Your task to perform on an android device: change notifications settings Image 0: 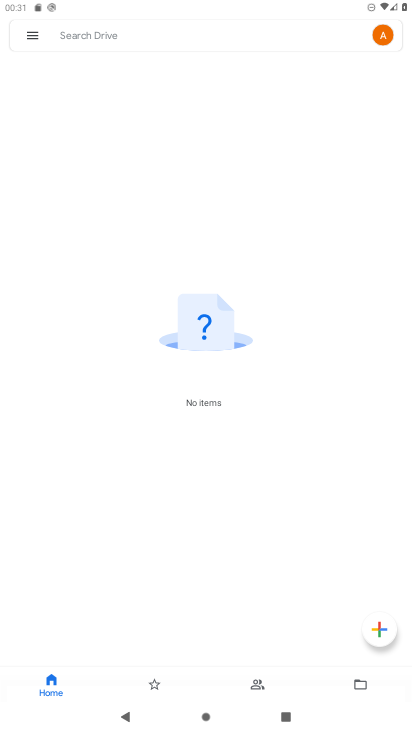
Step 0: press home button
Your task to perform on an android device: change notifications settings Image 1: 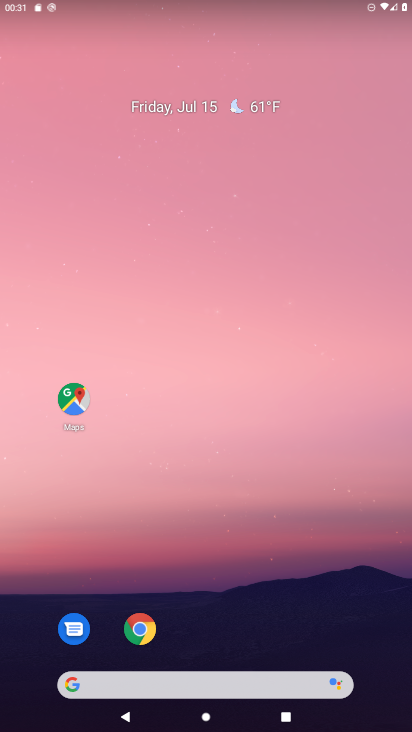
Step 1: drag from (185, 655) to (221, 16)
Your task to perform on an android device: change notifications settings Image 2: 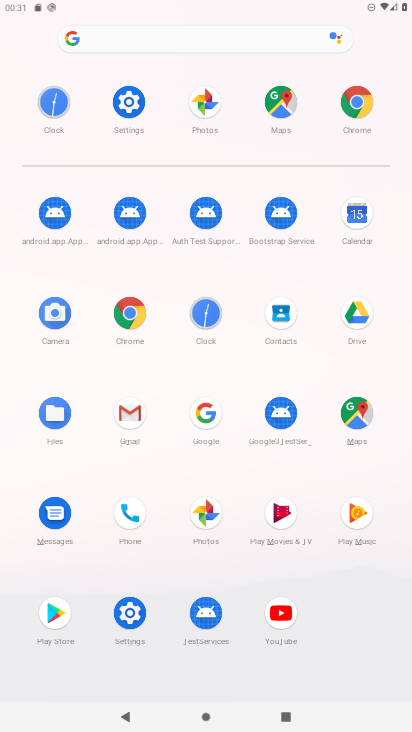
Step 2: click (122, 104)
Your task to perform on an android device: change notifications settings Image 3: 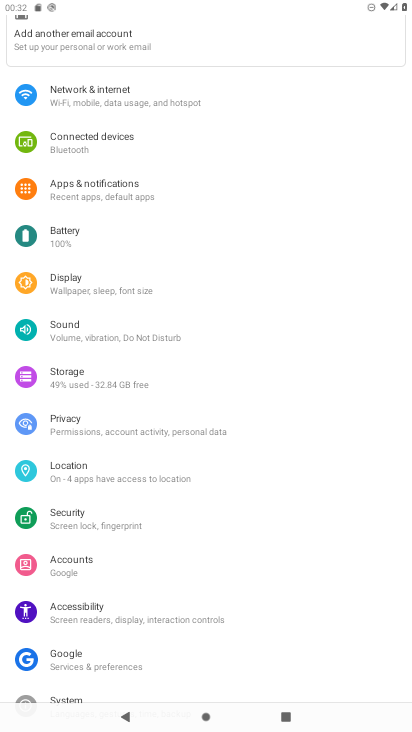
Step 3: click (190, 204)
Your task to perform on an android device: change notifications settings Image 4: 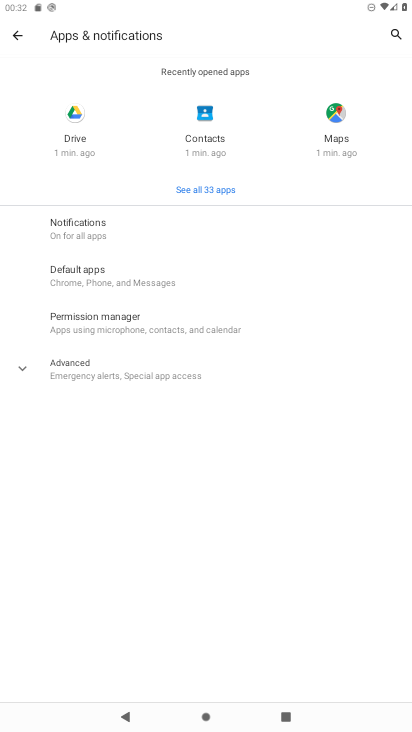
Step 4: click (124, 242)
Your task to perform on an android device: change notifications settings Image 5: 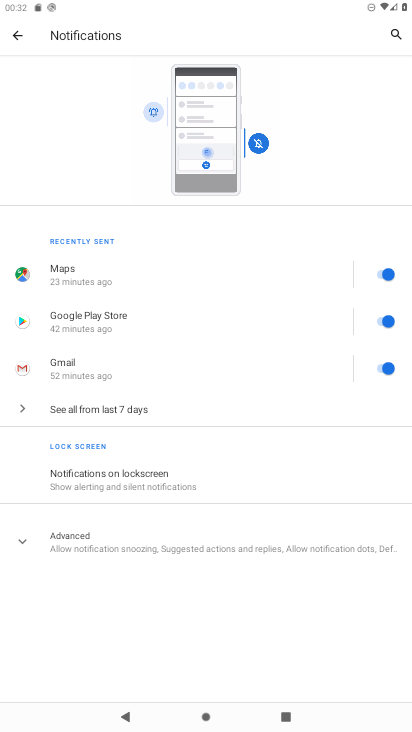
Step 5: click (113, 383)
Your task to perform on an android device: change notifications settings Image 6: 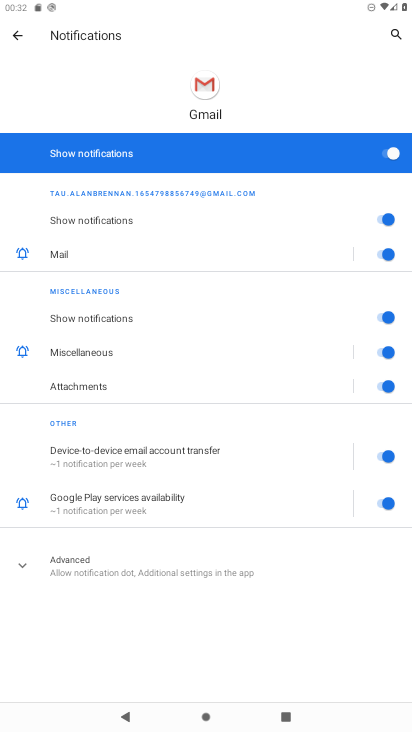
Step 6: click (183, 567)
Your task to perform on an android device: change notifications settings Image 7: 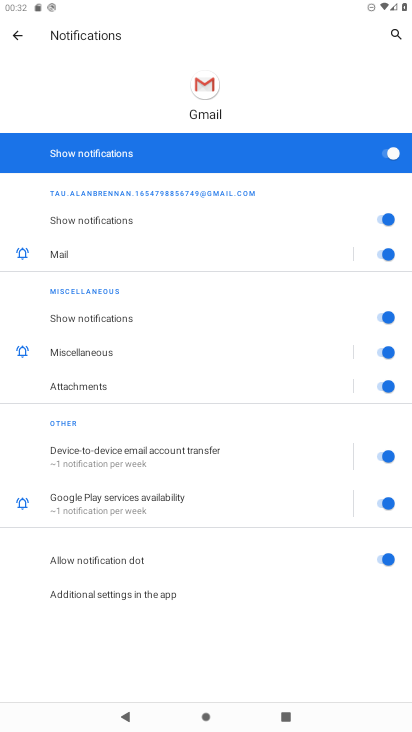
Step 7: click (387, 508)
Your task to perform on an android device: change notifications settings Image 8: 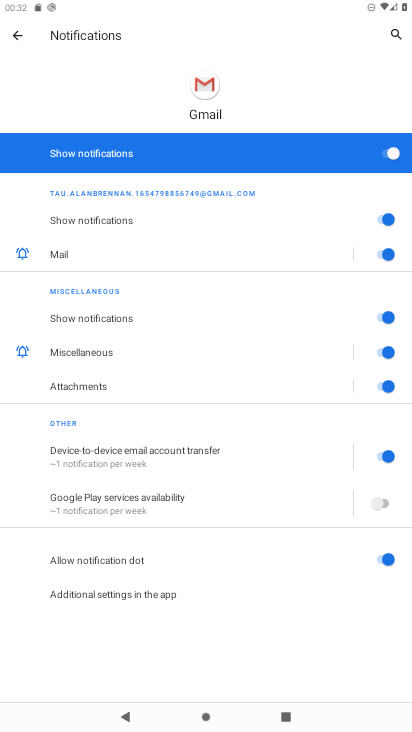
Step 8: click (385, 560)
Your task to perform on an android device: change notifications settings Image 9: 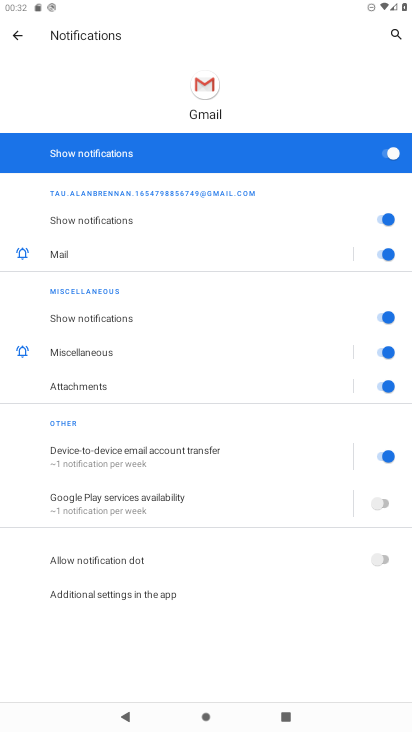
Step 9: click (389, 384)
Your task to perform on an android device: change notifications settings Image 10: 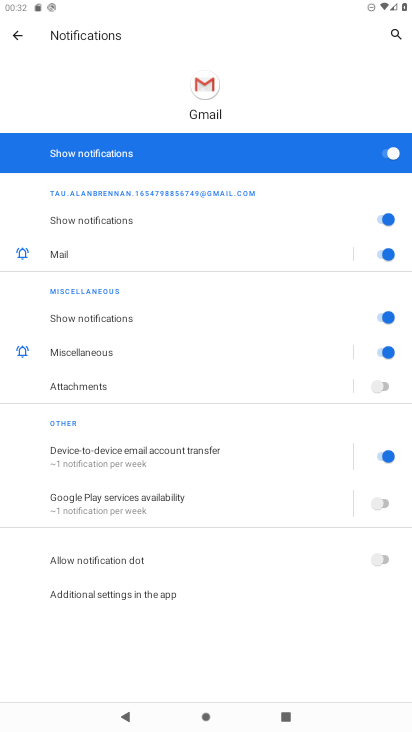
Step 10: click (383, 320)
Your task to perform on an android device: change notifications settings Image 11: 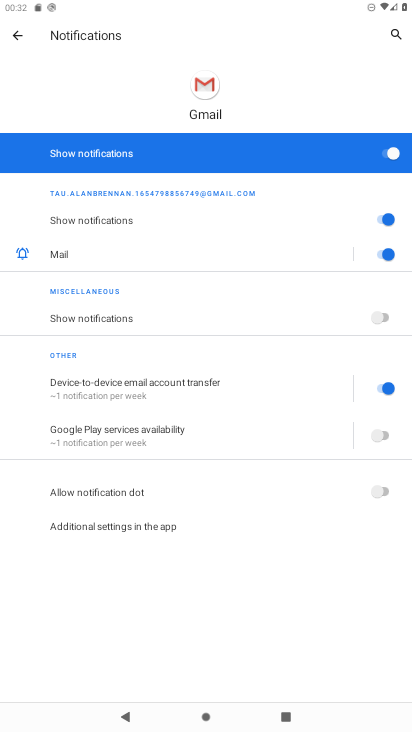
Step 11: task complete